Your task to perform on an android device: Open settings on Google Maps Image 0: 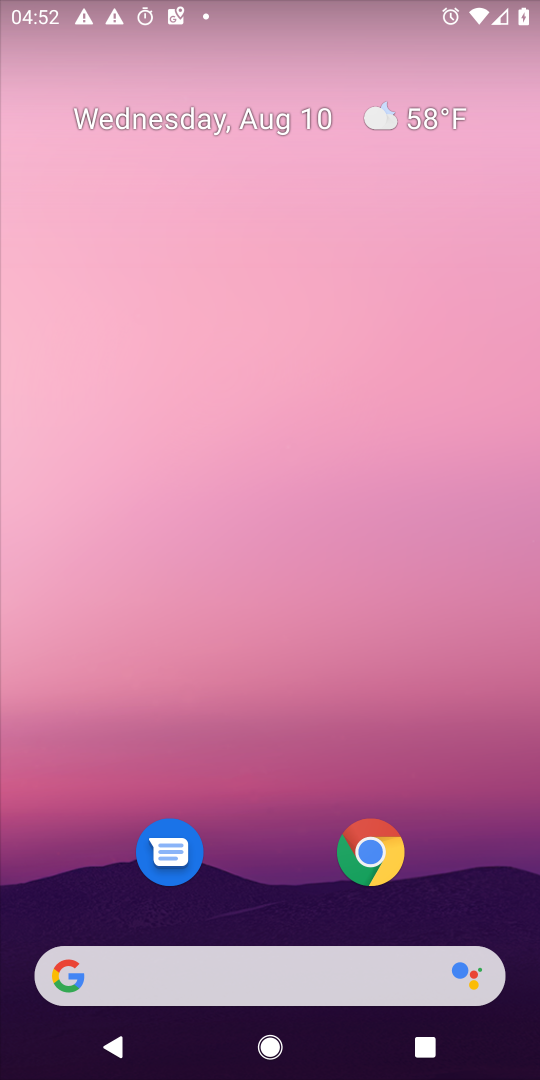
Step 0: drag from (285, 797) to (153, 126)
Your task to perform on an android device: Open settings on Google Maps Image 1: 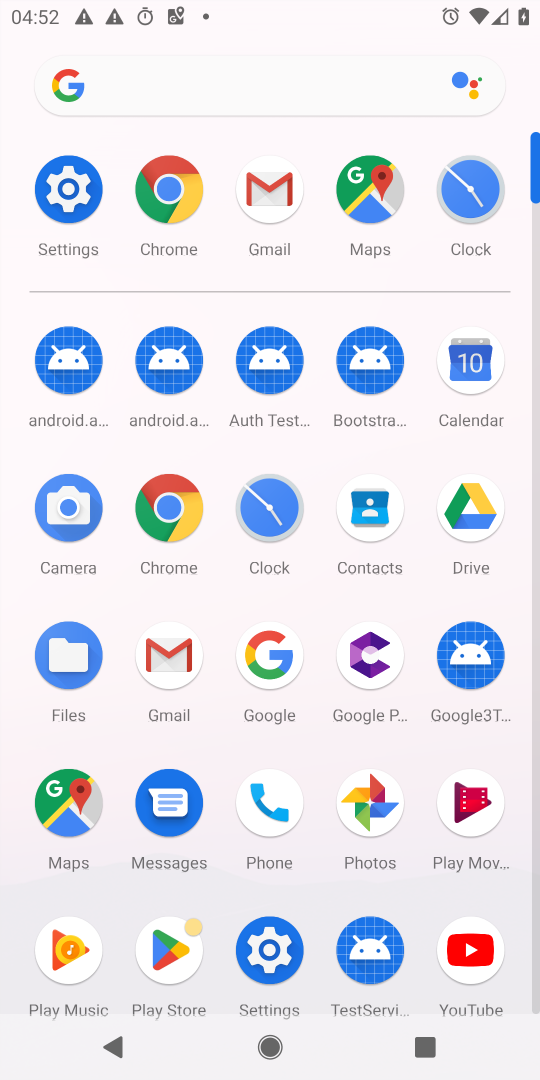
Step 1: click (60, 814)
Your task to perform on an android device: Open settings on Google Maps Image 2: 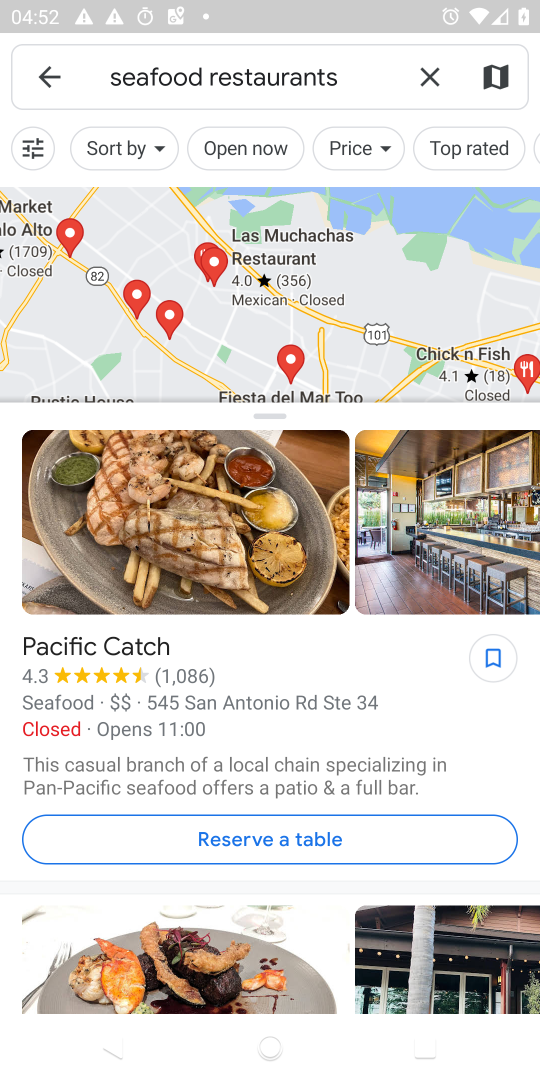
Step 2: click (54, 72)
Your task to perform on an android device: Open settings on Google Maps Image 3: 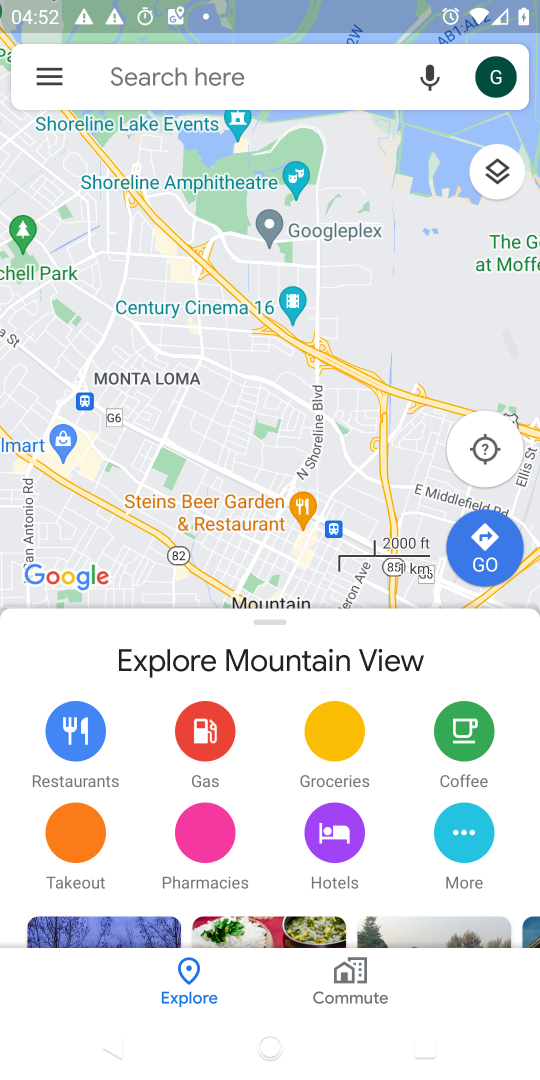
Step 3: click (54, 72)
Your task to perform on an android device: Open settings on Google Maps Image 4: 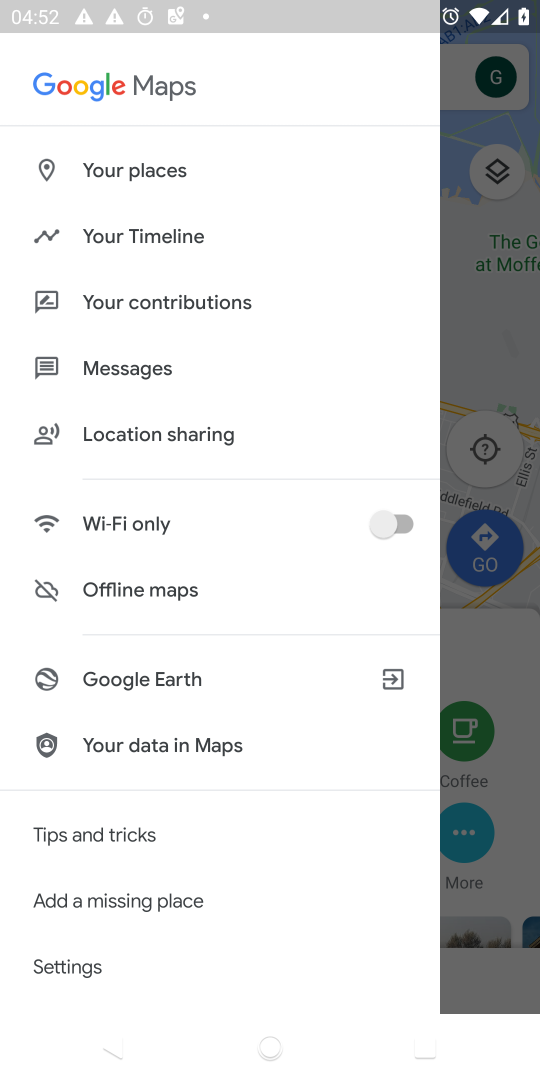
Step 4: drag from (182, 380) to (234, 1042)
Your task to perform on an android device: Open settings on Google Maps Image 5: 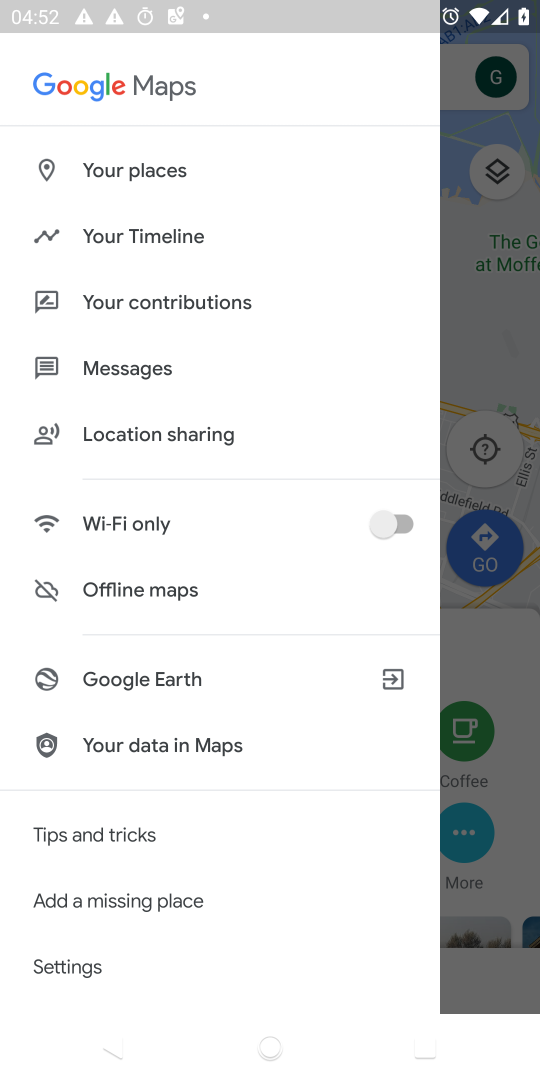
Step 5: click (91, 960)
Your task to perform on an android device: Open settings on Google Maps Image 6: 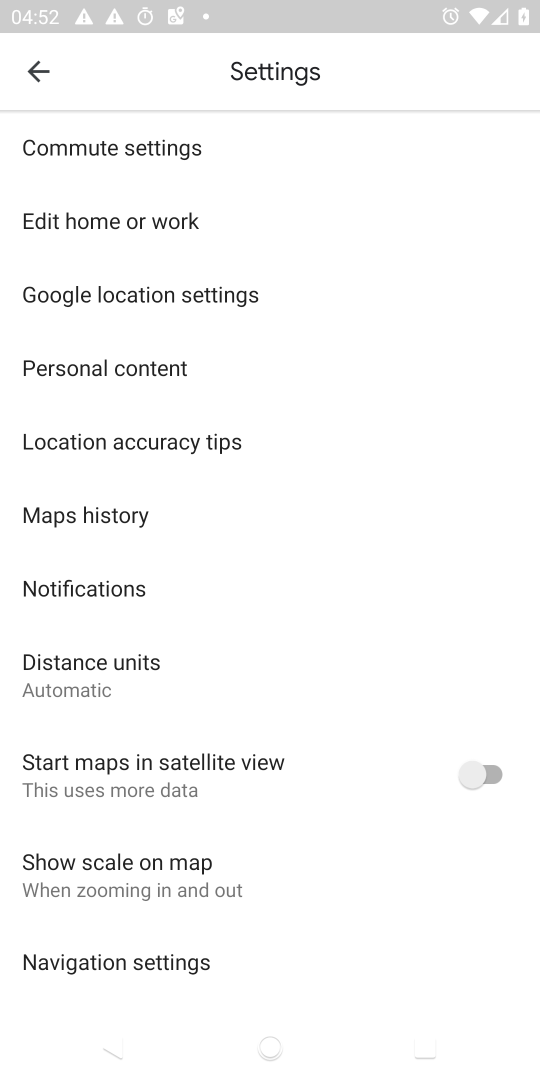
Step 6: task complete